Your task to perform on an android device: change the clock display to analog Image 0: 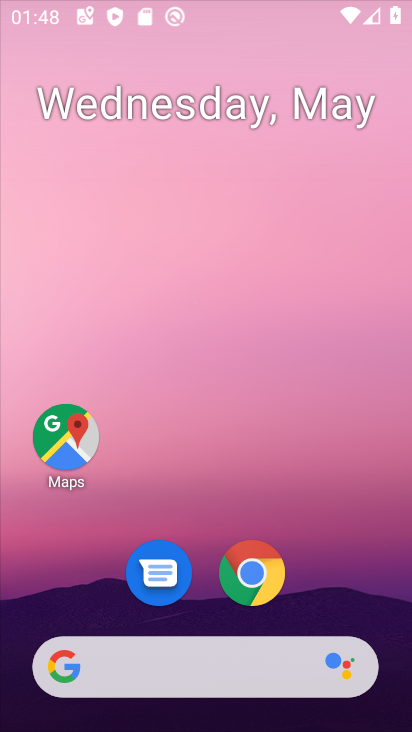
Step 0: drag from (305, 606) to (287, 235)
Your task to perform on an android device: change the clock display to analog Image 1: 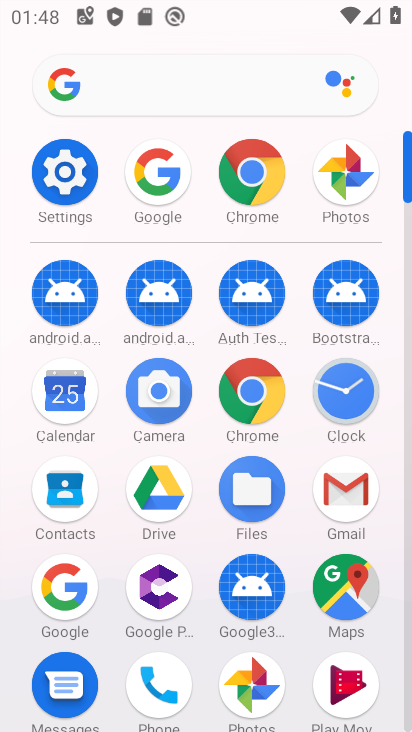
Step 1: click (337, 399)
Your task to perform on an android device: change the clock display to analog Image 2: 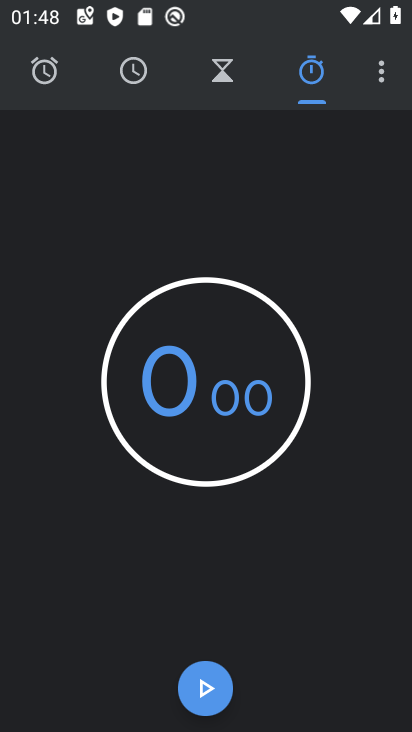
Step 2: click (381, 73)
Your task to perform on an android device: change the clock display to analog Image 3: 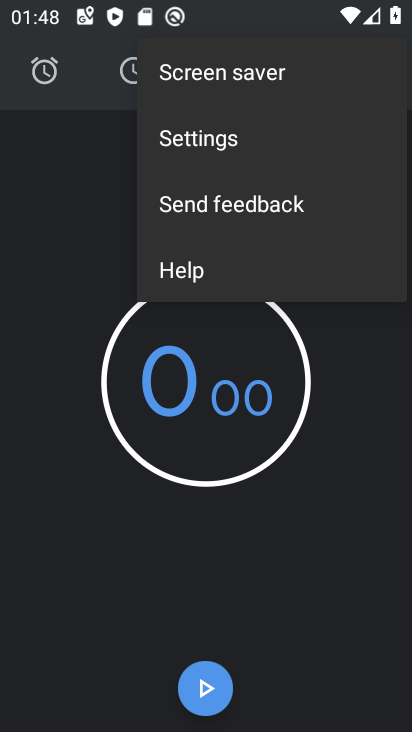
Step 3: click (231, 132)
Your task to perform on an android device: change the clock display to analog Image 4: 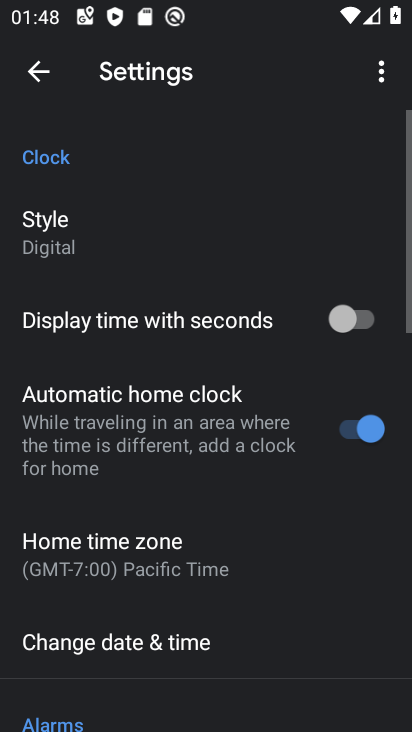
Step 4: click (95, 260)
Your task to perform on an android device: change the clock display to analog Image 5: 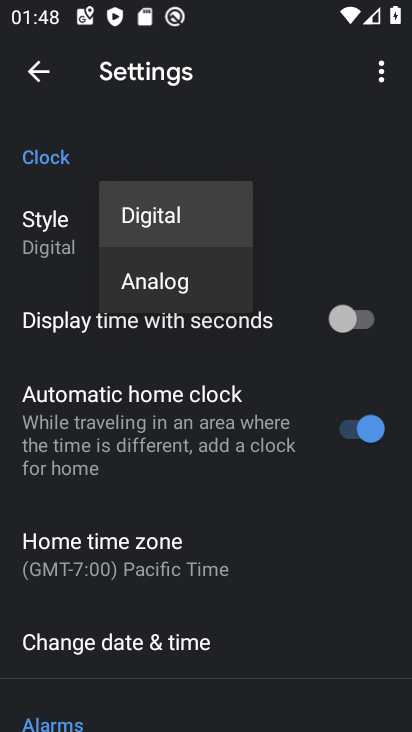
Step 5: click (163, 290)
Your task to perform on an android device: change the clock display to analog Image 6: 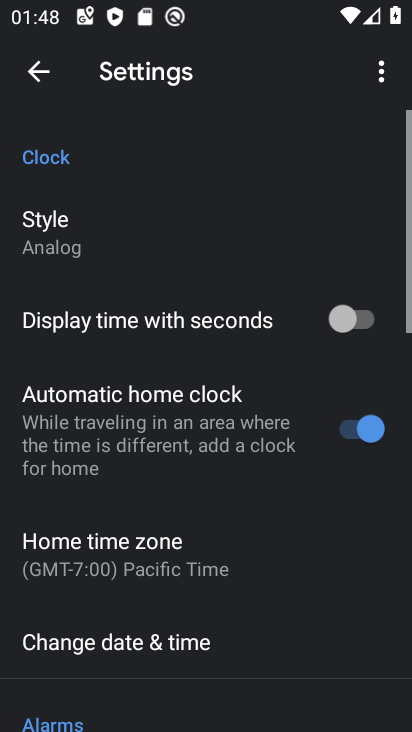
Step 6: task complete